Your task to perform on an android device: turn off airplane mode Image 0: 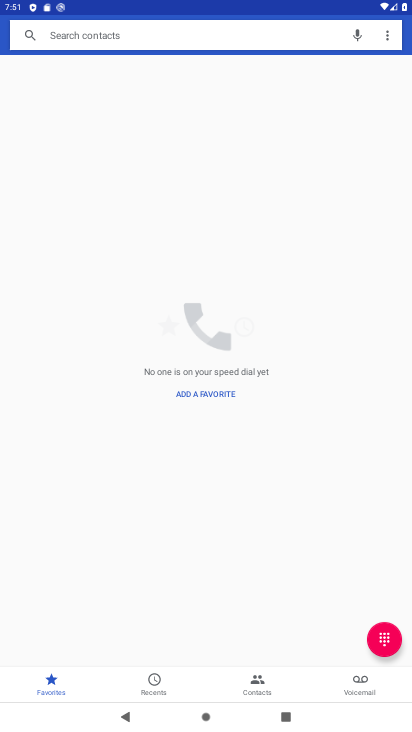
Step 0: press home button
Your task to perform on an android device: turn off airplane mode Image 1: 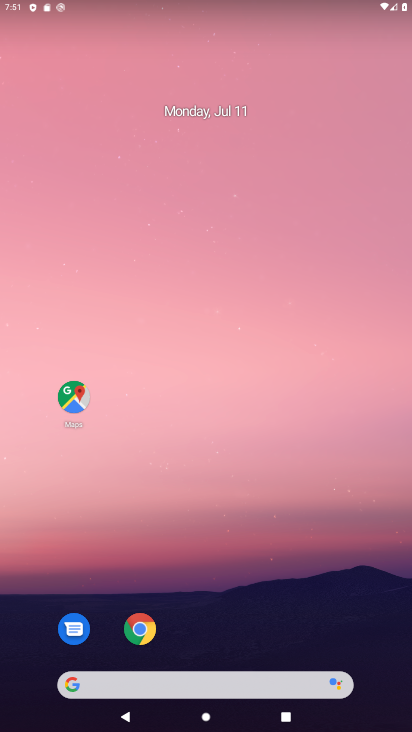
Step 1: drag from (231, 652) to (226, 8)
Your task to perform on an android device: turn off airplane mode Image 2: 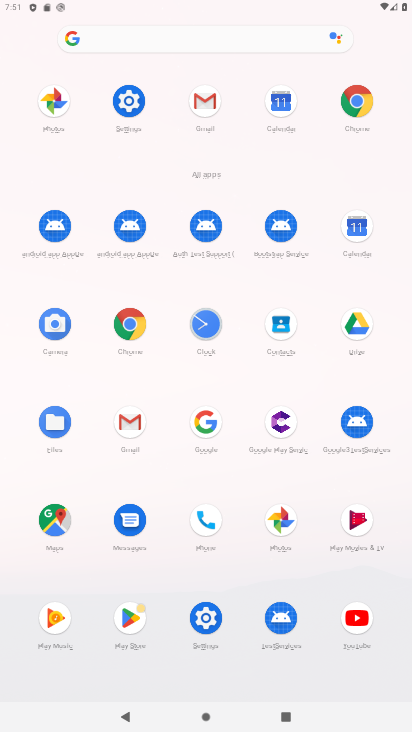
Step 2: click (114, 98)
Your task to perform on an android device: turn off airplane mode Image 3: 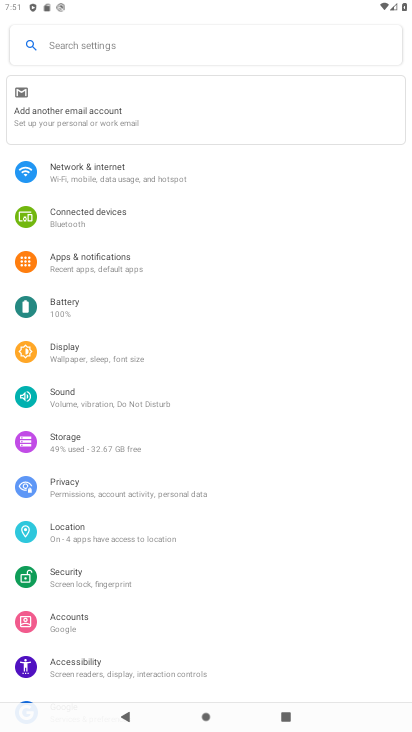
Step 3: click (133, 172)
Your task to perform on an android device: turn off airplane mode Image 4: 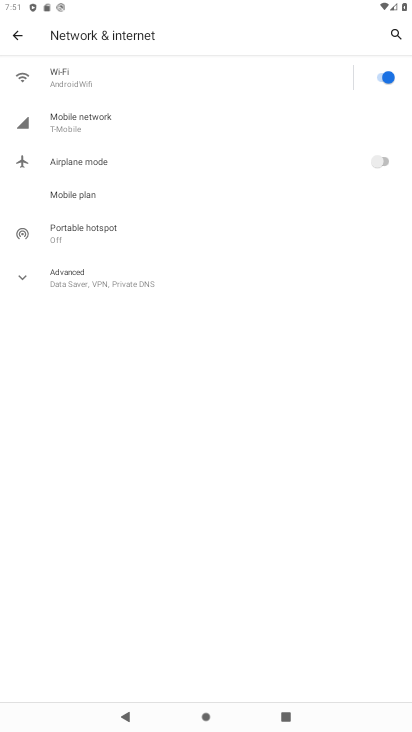
Step 4: task complete